Your task to perform on an android device: check out phone information Image 0: 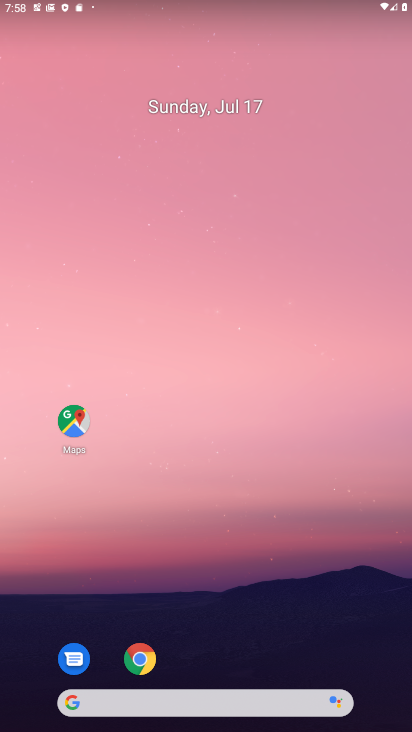
Step 0: drag from (184, 655) to (166, 218)
Your task to perform on an android device: check out phone information Image 1: 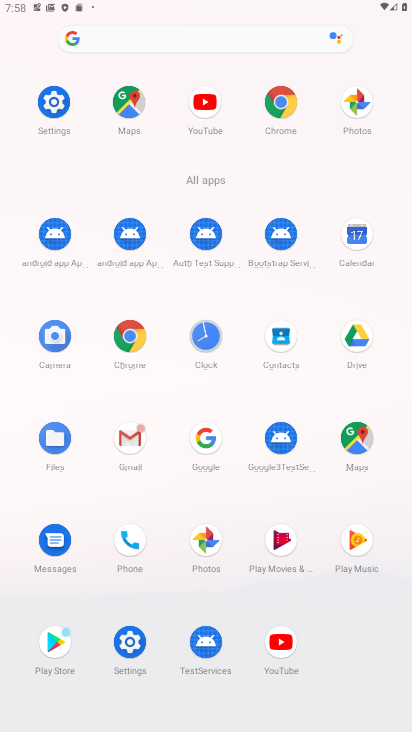
Step 1: click (59, 105)
Your task to perform on an android device: check out phone information Image 2: 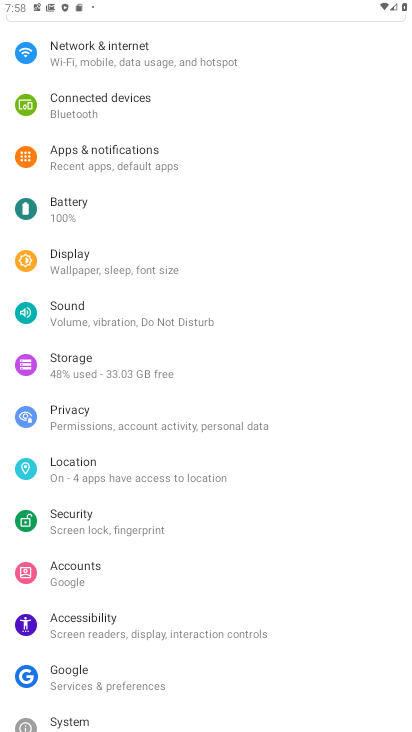
Step 2: drag from (187, 676) to (217, 242)
Your task to perform on an android device: check out phone information Image 3: 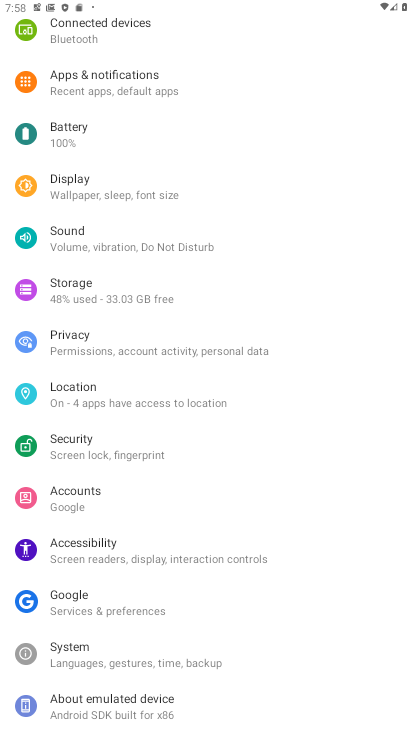
Step 3: click (99, 695)
Your task to perform on an android device: check out phone information Image 4: 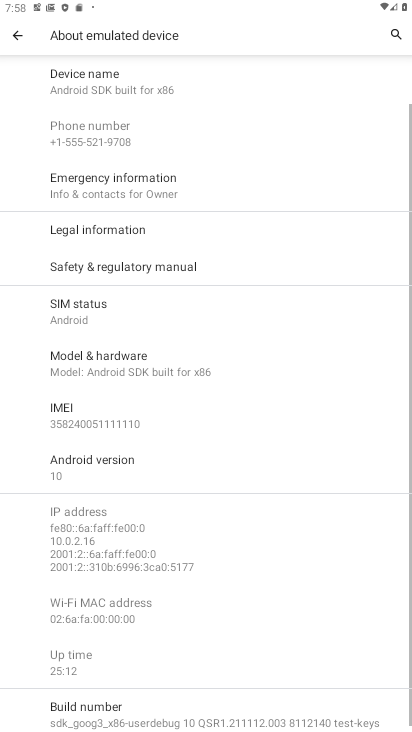
Step 4: task complete